Your task to perform on an android device: check out phone information Image 0: 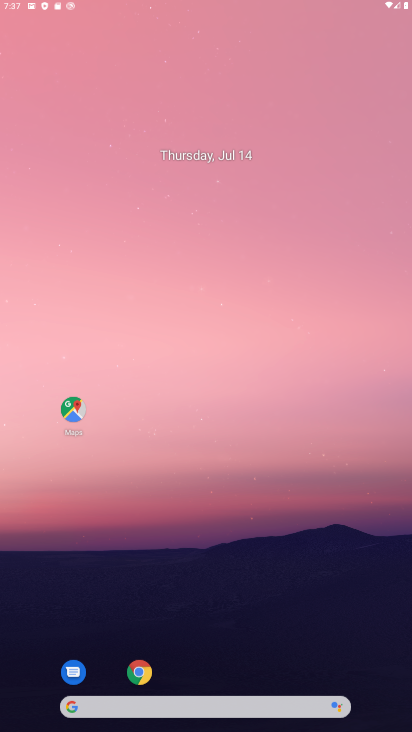
Step 0: drag from (272, 291) to (284, 232)
Your task to perform on an android device: check out phone information Image 1: 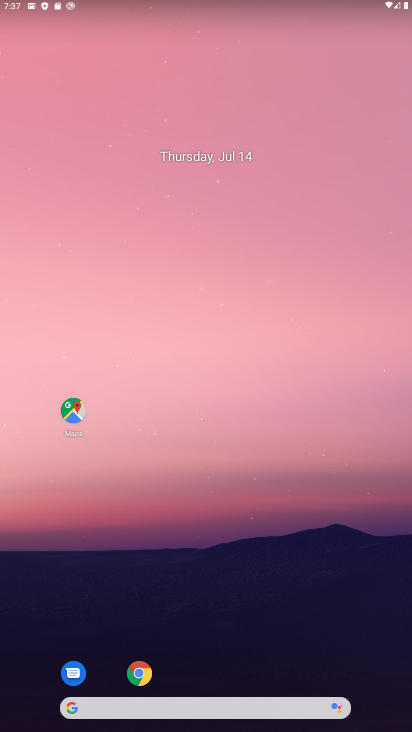
Step 1: drag from (177, 665) to (175, 379)
Your task to perform on an android device: check out phone information Image 2: 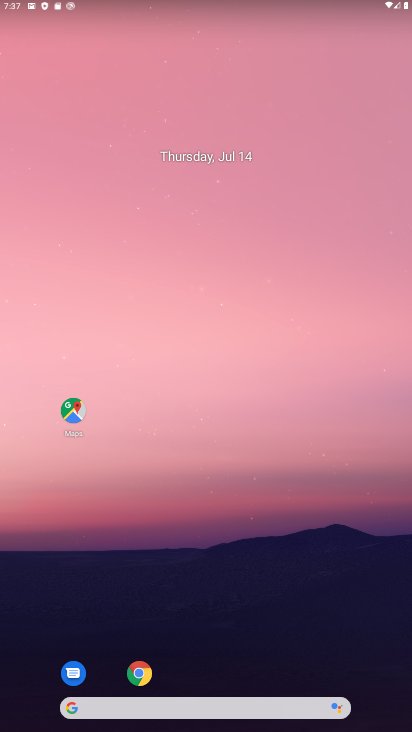
Step 2: drag from (193, 666) to (187, 425)
Your task to perform on an android device: check out phone information Image 3: 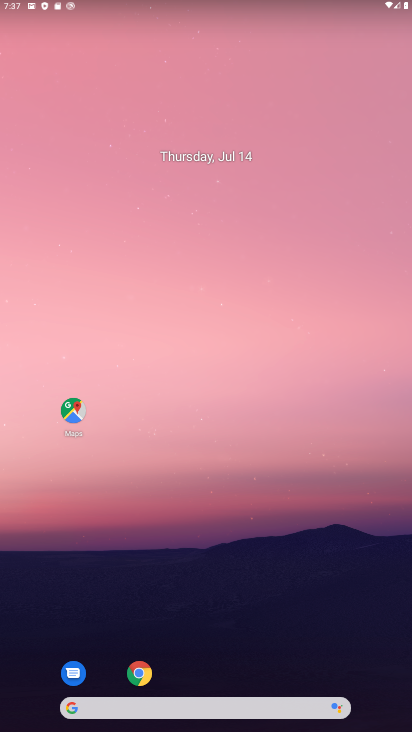
Step 3: drag from (177, 677) to (266, 379)
Your task to perform on an android device: check out phone information Image 4: 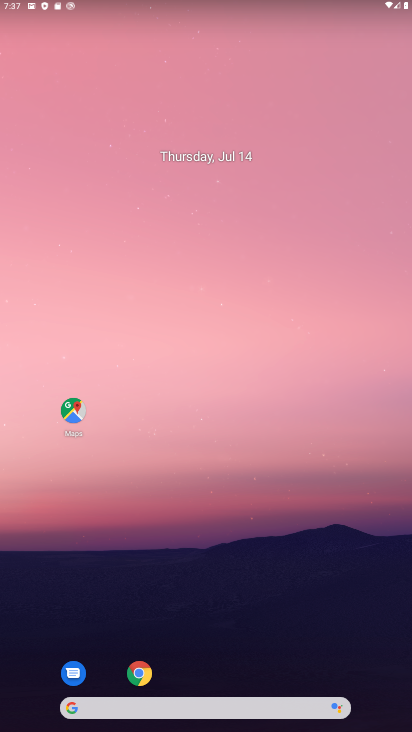
Step 4: drag from (183, 658) to (216, 359)
Your task to perform on an android device: check out phone information Image 5: 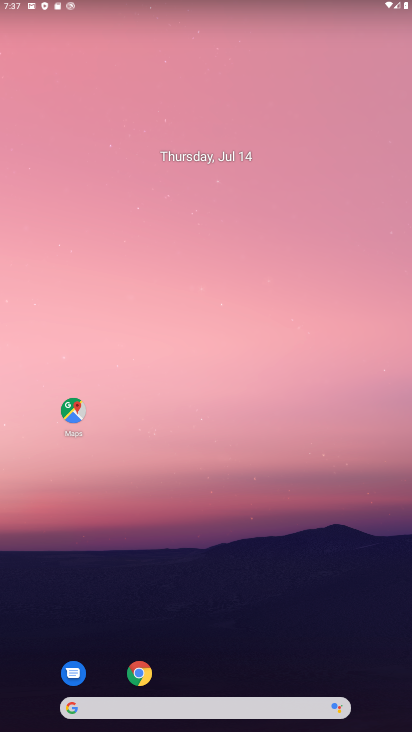
Step 5: drag from (193, 665) to (264, 212)
Your task to perform on an android device: check out phone information Image 6: 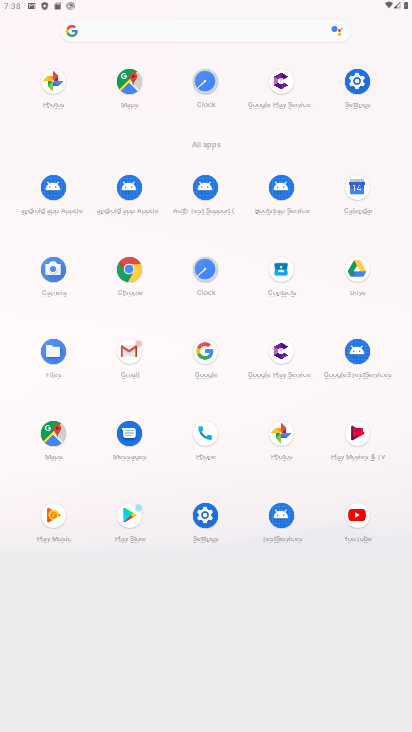
Step 6: click (212, 517)
Your task to perform on an android device: check out phone information Image 7: 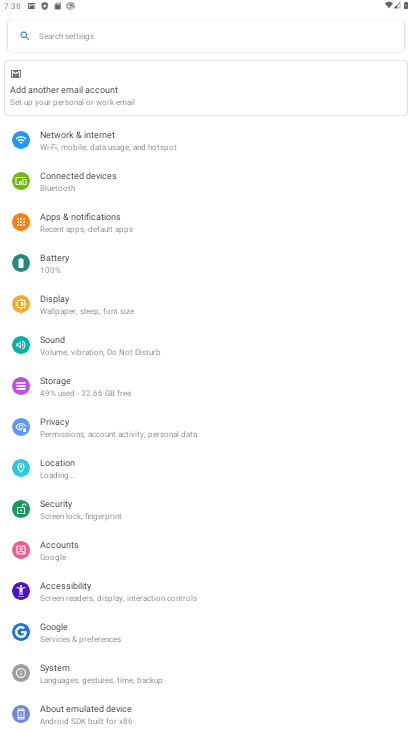
Step 7: drag from (165, 627) to (212, 226)
Your task to perform on an android device: check out phone information Image 8: 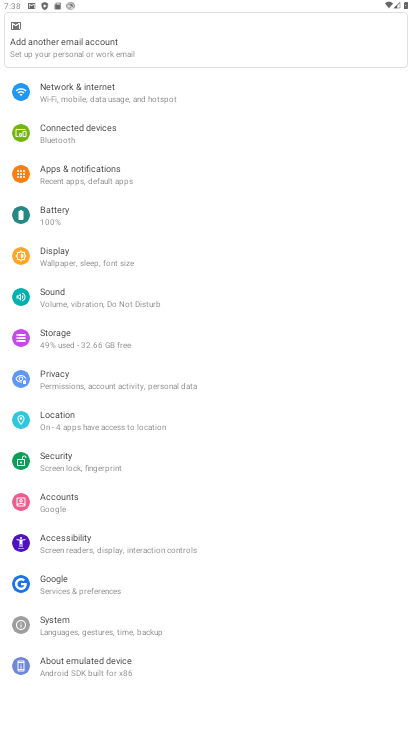
Step 8: click (124, 674)
Your task to perform on an android device: check out phone information Image 9: 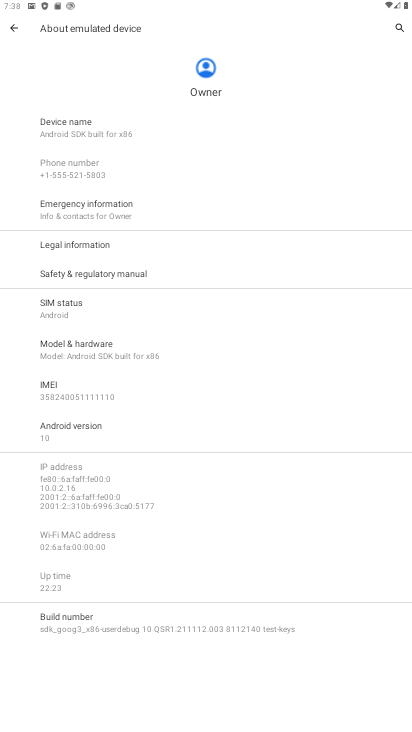
Step 9: task complete